Your task to perform on an android device: uninstall "NewsBreak: Local News & Alerts" Image 0: 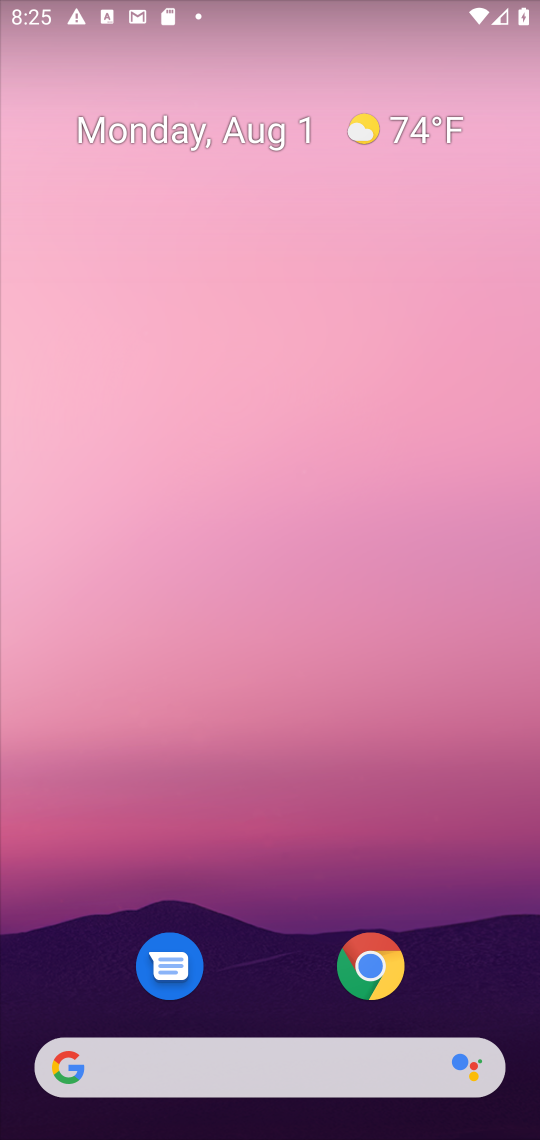
Step 0: drag from (536, 1114) to (506, 247)
Your task to perform on an android device: uninstall "NewsBreak: Local News & Alerts" Image 1: 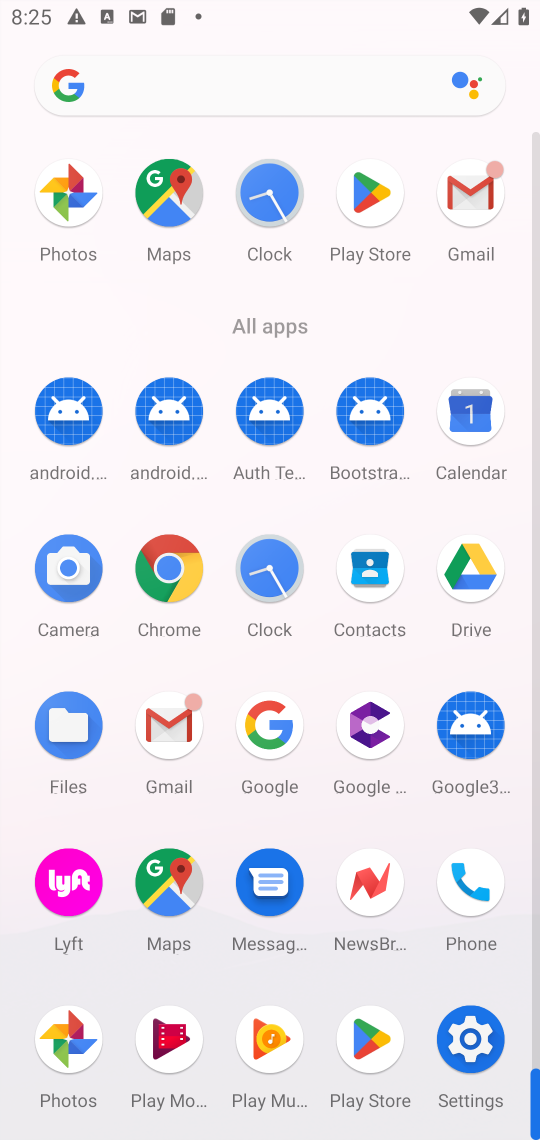
Step 1: drag from (319, 993) to (325, 702)
Your task to perform on an android device: uninstall "NewsBreak: Local News & Alerts" Image 2: 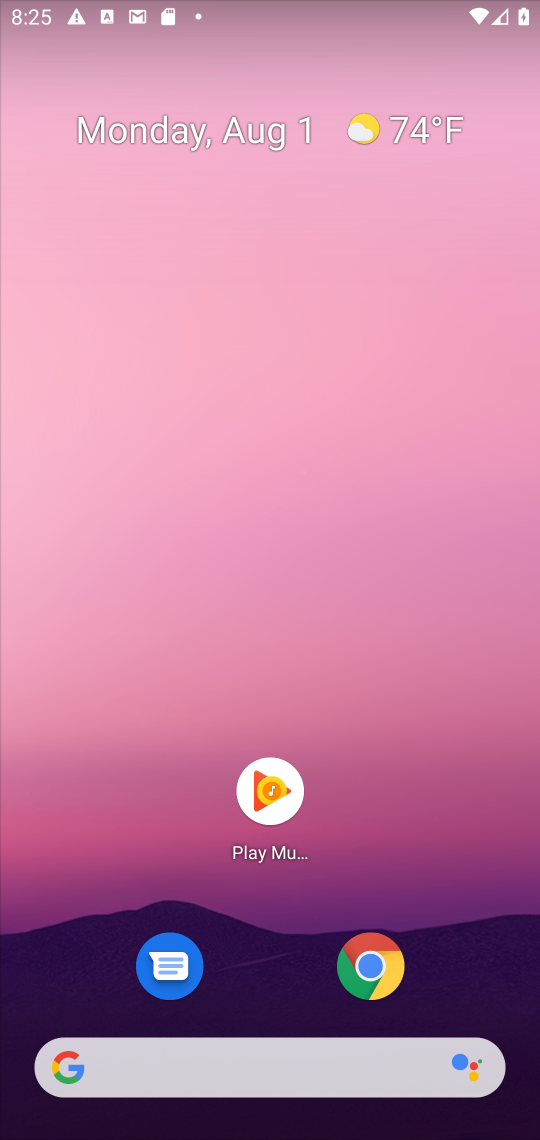
Step 2: drag from (521, 996) to (466, 259)
Your task to perform on an android device: uninstall "NewsBreak: Local News & Alerts" Image 3: 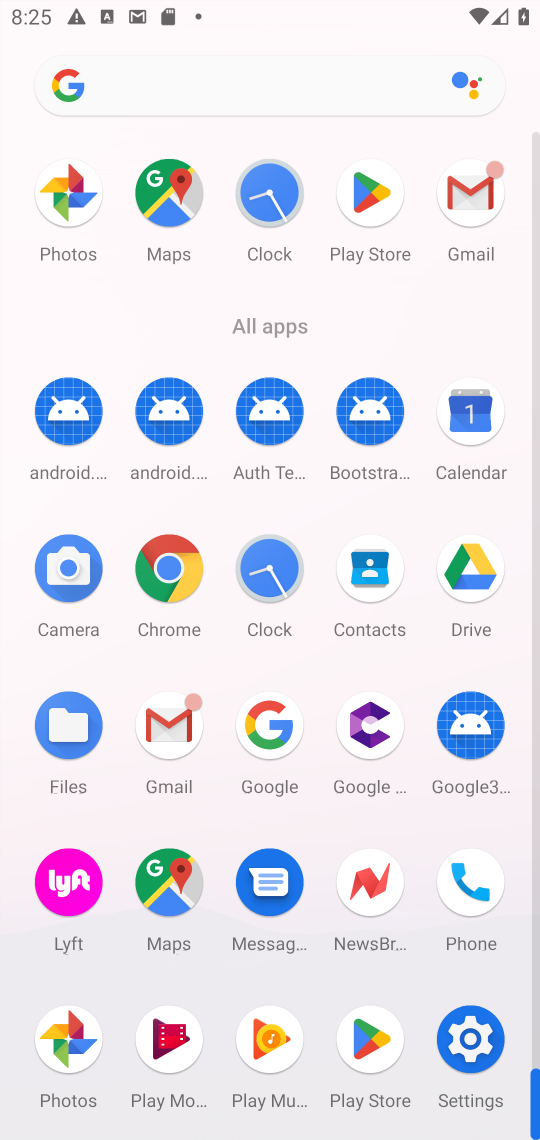
Step 3: drag from (360, 881) to (386, 68)
Your task to perform on an android device: uninstall "NewsBreak: Local News & Alerts" Image 4: 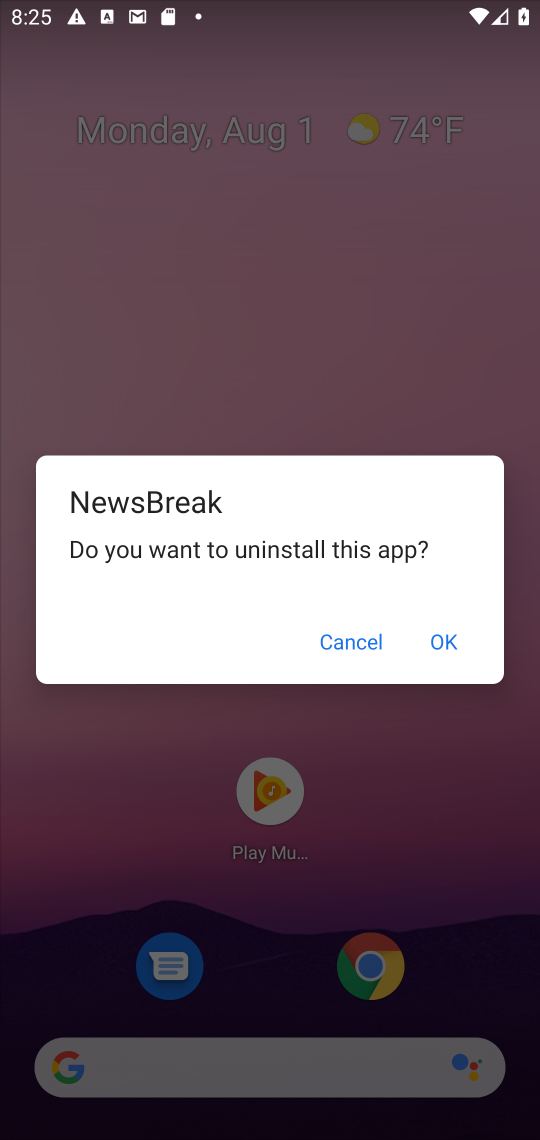
Step 4: click (447, 645)
Your task to perform on an android device: uninstall "NewsBreak: Local News & Alerts" Image 5: 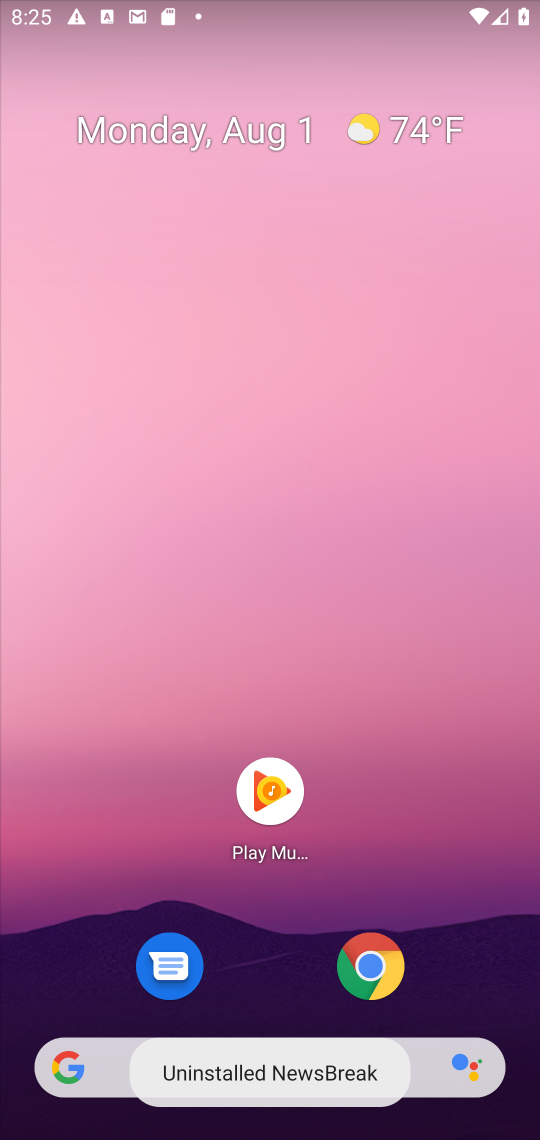
Step 5: task complete